Your task to perform on an android device: uninstall "Move to iOS" Image 0: 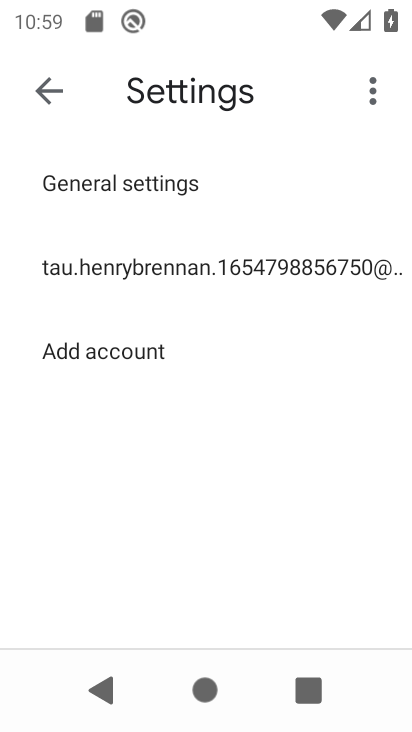
Step 0: press home button
Your task to perform on an android device: uninstall "Move to iOS" Image 1: 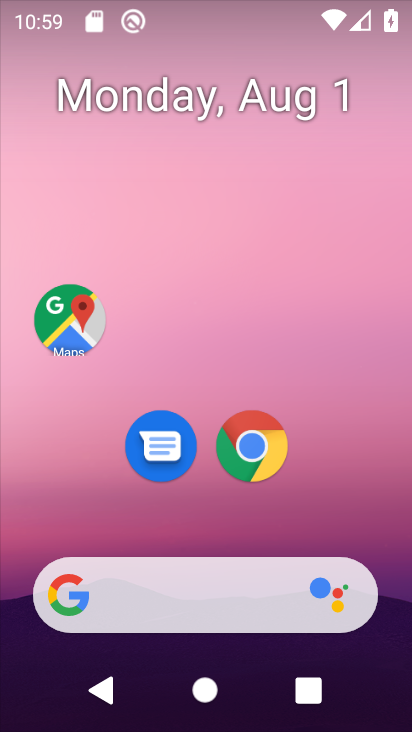
Step 1: drag from (211, 540) to (209, 144)
Your task to perform on an android device: uninstall "Move to iOS" Image 2: 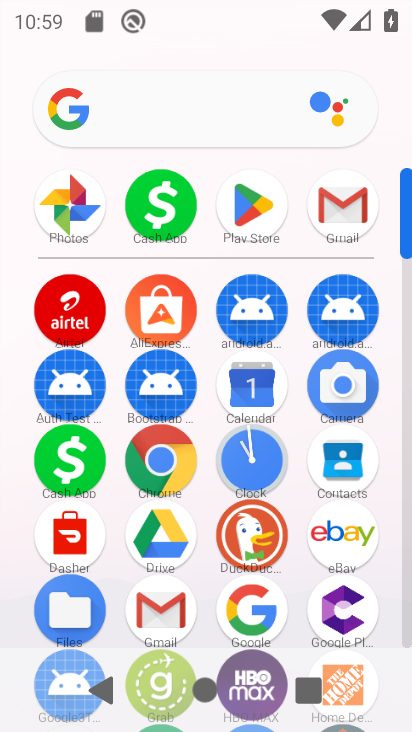
Step 2: click (244, 223)
Your task to perform on an android device: uninstall "Move to iOS" Image 3: 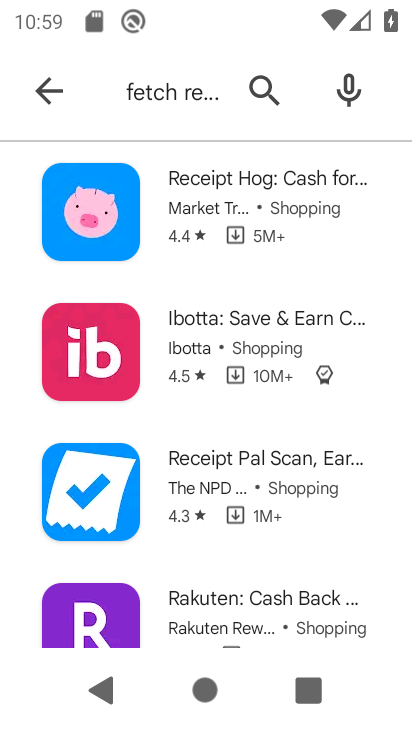
Step 3: click (264, 97)
Your task to perform on an android device: uninstall "Move to iOS" Image 4: 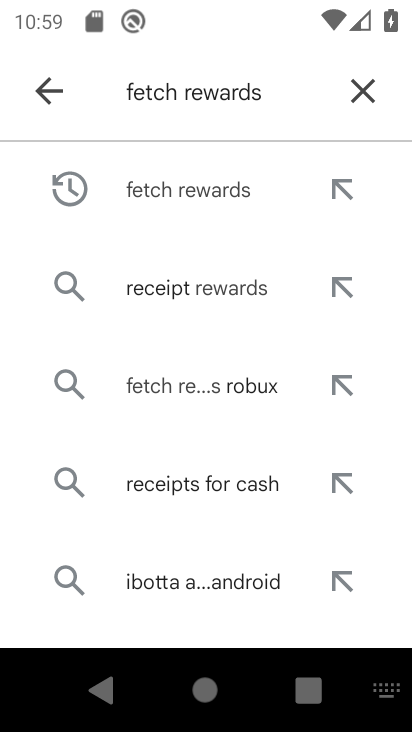
Step 4: click (370, 82)
Your task to perform on an android device: uninstall "Move to iOS" Image 5: 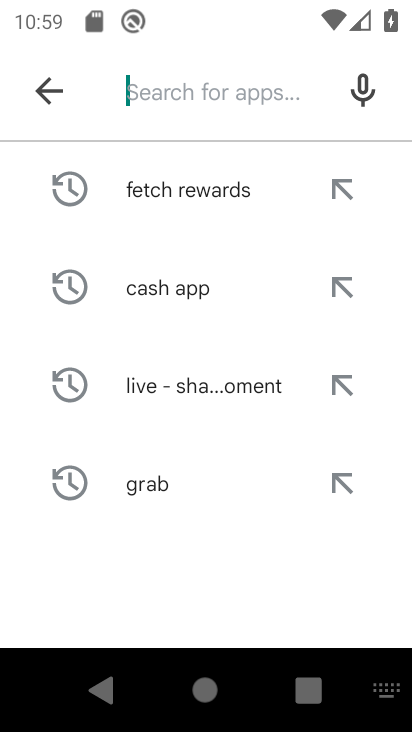
Step 5: type "Move to iOS"
Your task to perform on an android device: uninstall "Move to iOS" Image 6: 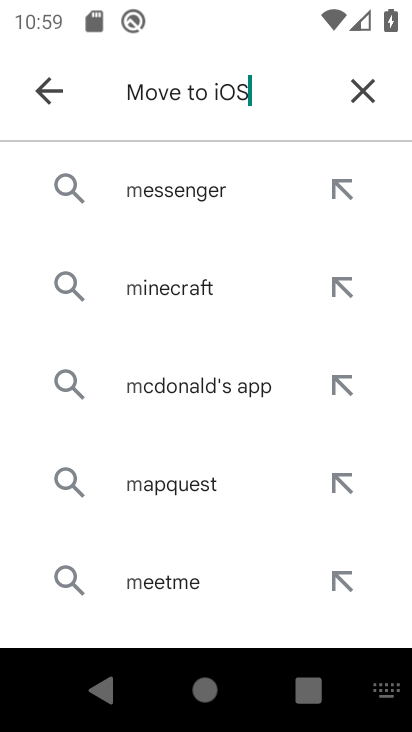
Step 6: type ""
Your task to perform on an android device: uninstall "Move to iOS" Image 7: 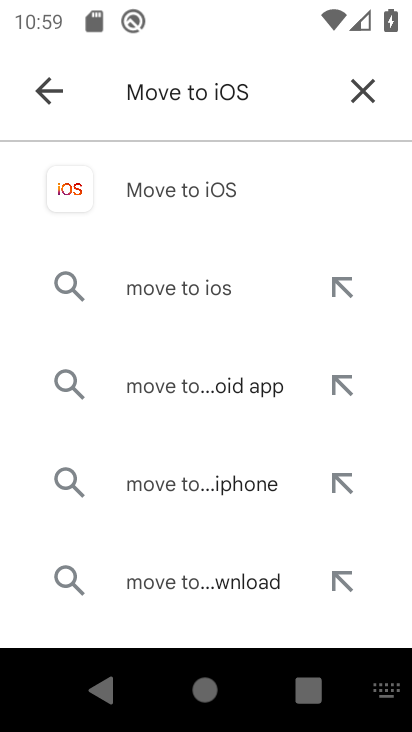
Step 7: click (180, 179)
Your task to perform on an android device: uninstall "Move to iOS" Image 8: 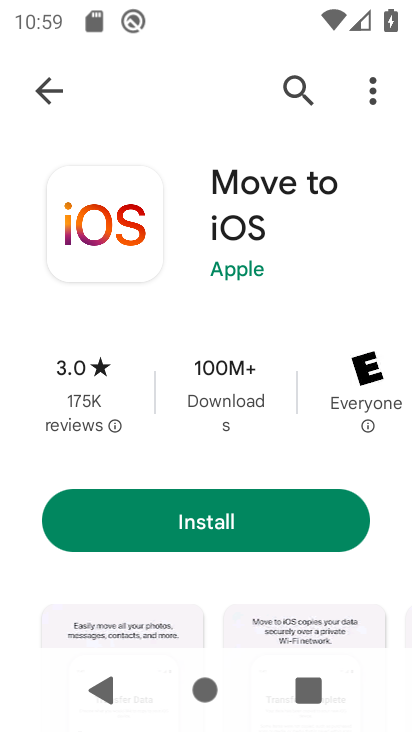
Step 8: task complete